Your task to perform on an android device: check android version Image 0: 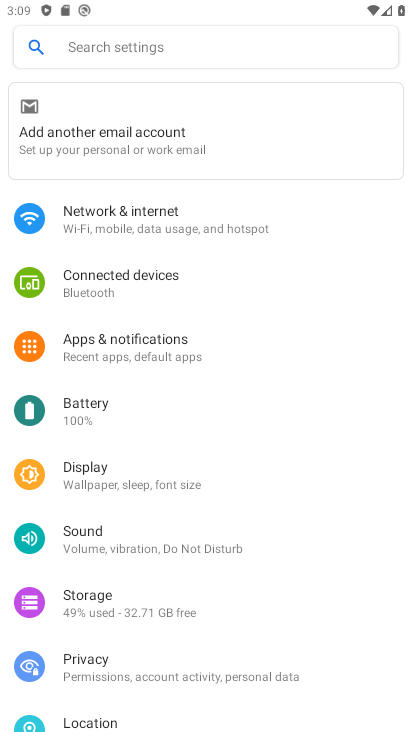
Step 0: press home button
Your task to perform on an android device: check android version Image 1: 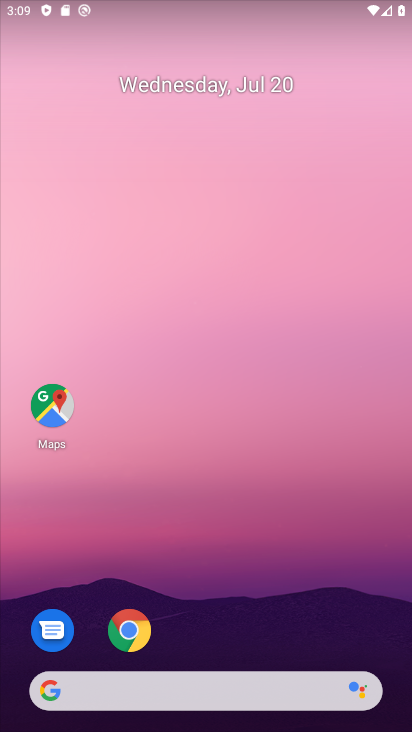
Step 1: drag from (320, 641) to (233, 0)
Your task to perform on an android device: check android version Image 2: 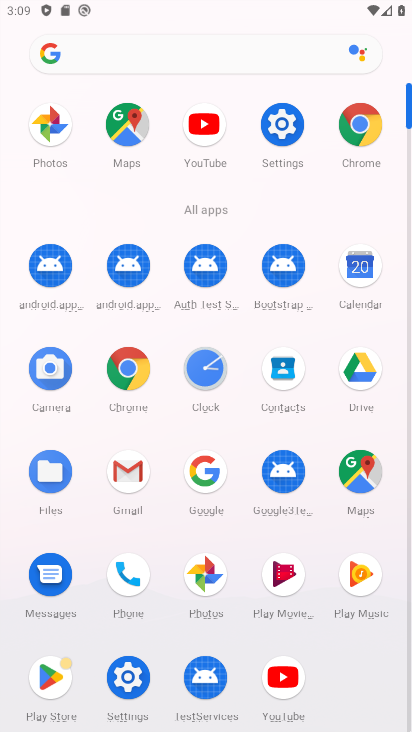
Step 2: click (284, 122)
Your task to perform on an android device: check android version Image 3: 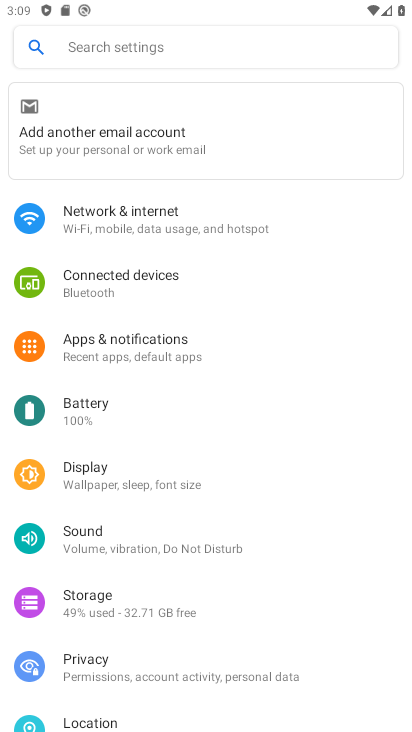
Step 3: drag from (346, 601) to (290, 19)
Your task to perform on an android device: check android version Image 4: 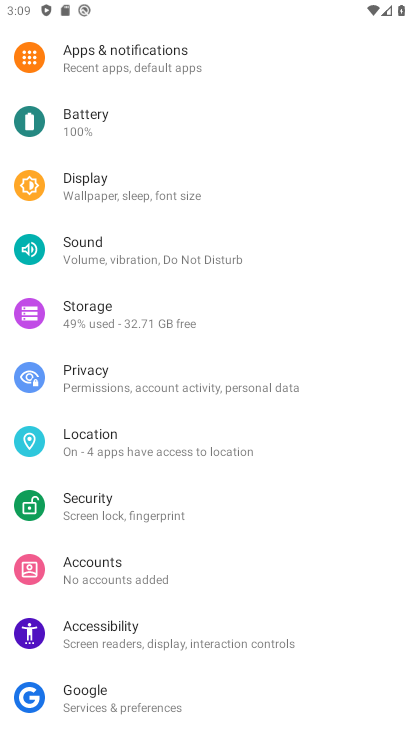
Step 4: drag from (300, 674) to (257, 75)
Your task to perform on an android device: check android version Image 5: 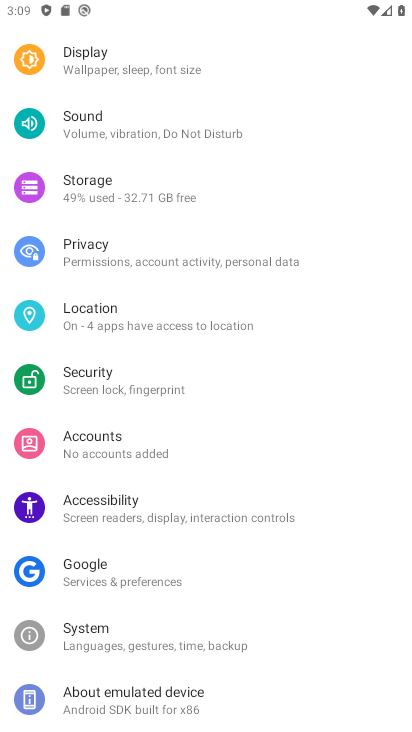
Step 5: click (144, 706)
Your task to perform on an android device: check android version Image 6: 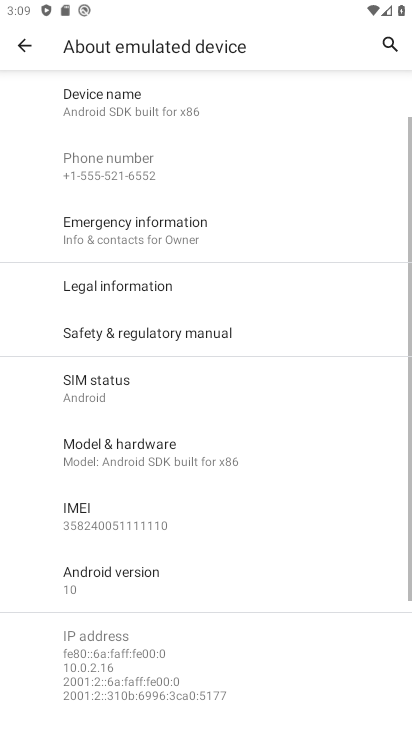
Step 6: task complete